Your task to perform on an android device: Add "razer naga" to the cart on walmart.com, then select checkout. Image 0: 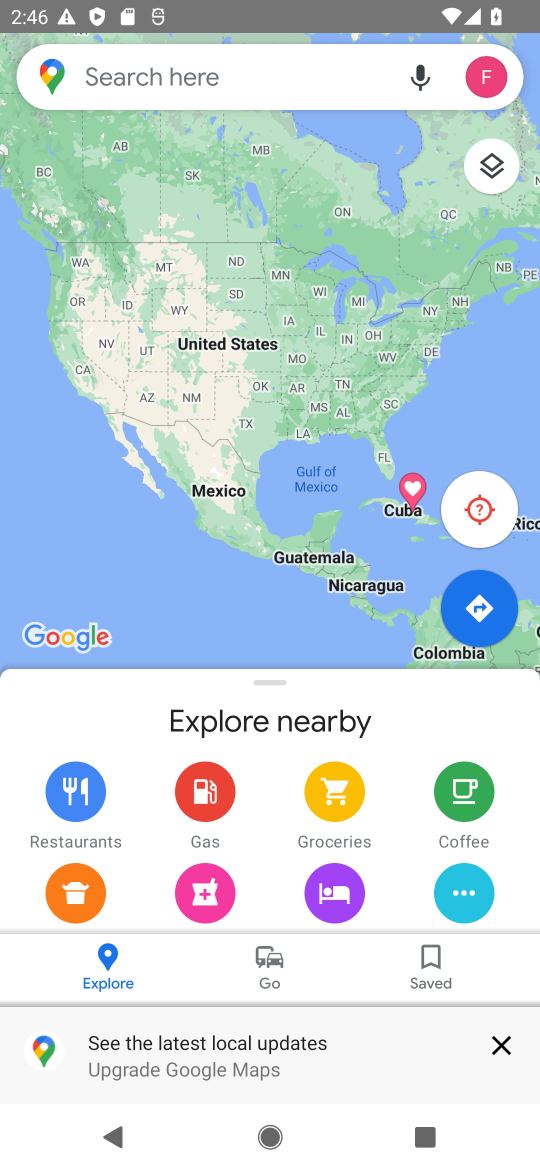
Step 0: press home button
Your task to perform on an android device: Add "razer naga" to the cart on walmart.com, then select checkout. Image 1: 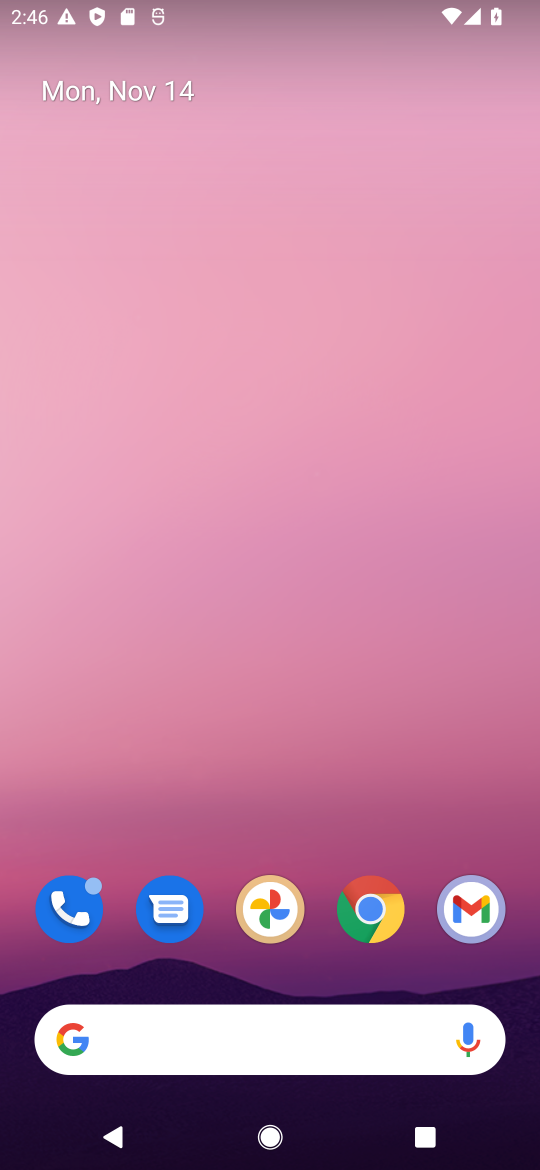
Step 1: drag from (313, 978) to (377, 32)
Your task to perform on an android device: Add "razer naga" to the cart on walmart.com, then select checkout. Image 2: 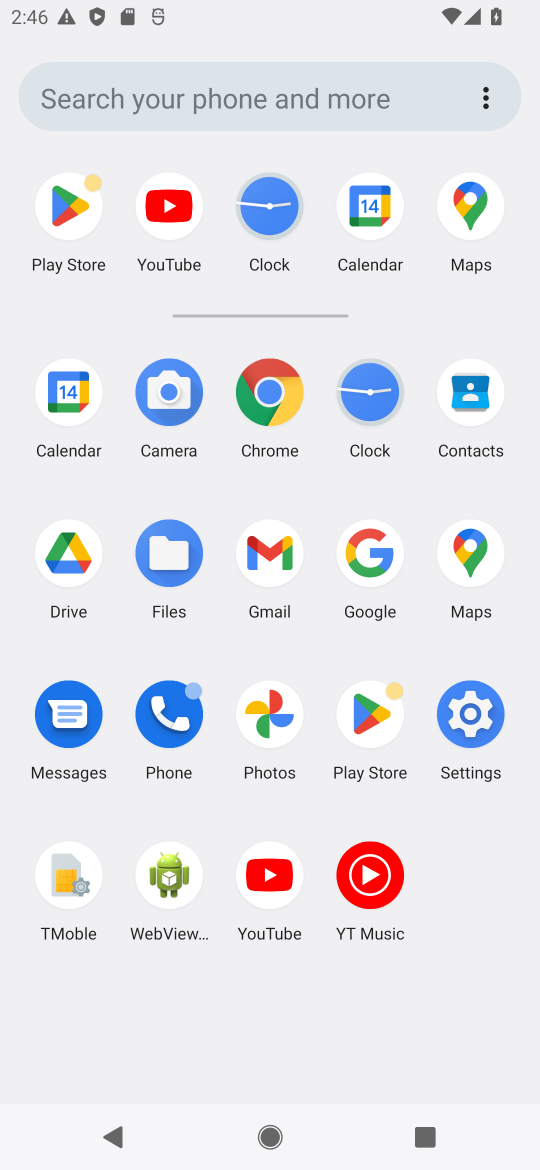
Step 2: click (272, 391)
Your task to perform on an android device: Add "razer naga" to the cart on walmart.com, then select checkout. Image 3: 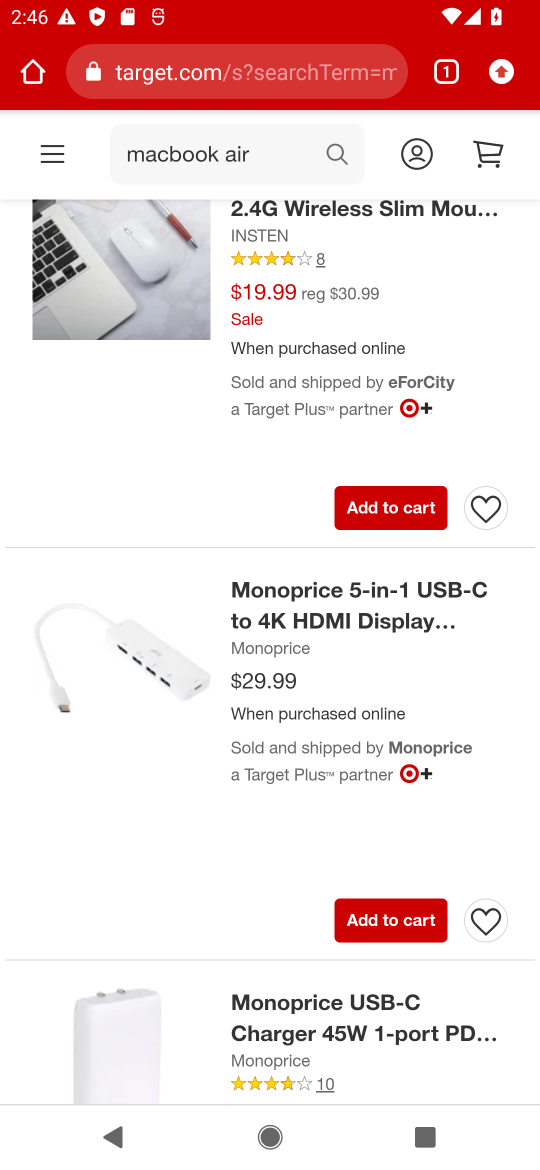
Step 3: click (245, 79)
Your task to perform on an android device: Add "razer naga" to the cart on walmart.com, then select checkout. Image 4: 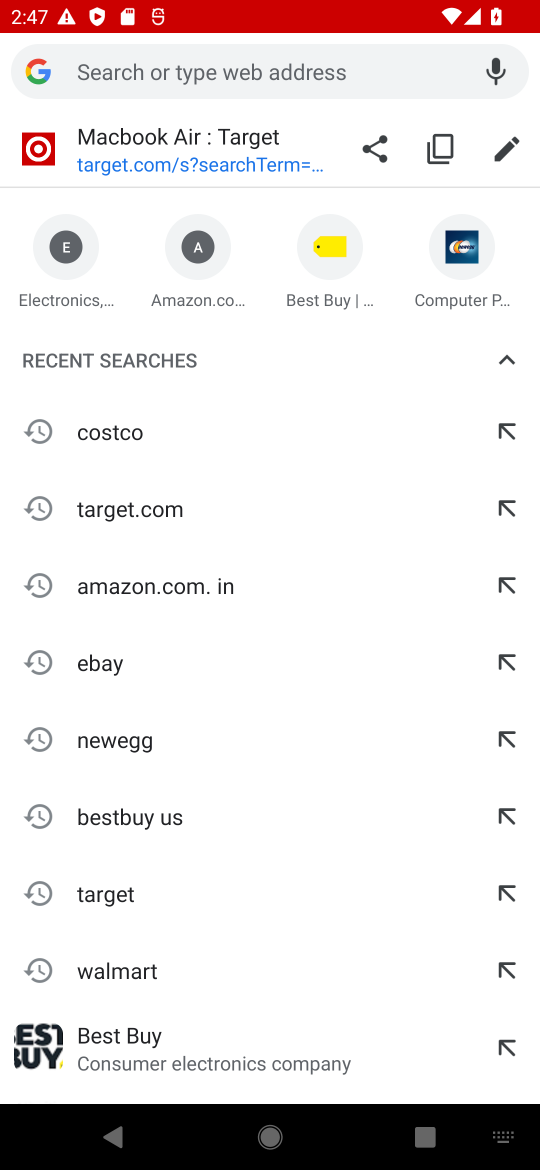
Step 4: type "walmart.com"
Your task to perform on an android device: Add "razer naga" to the cart on walmart.com, then select checkout. Image 5: 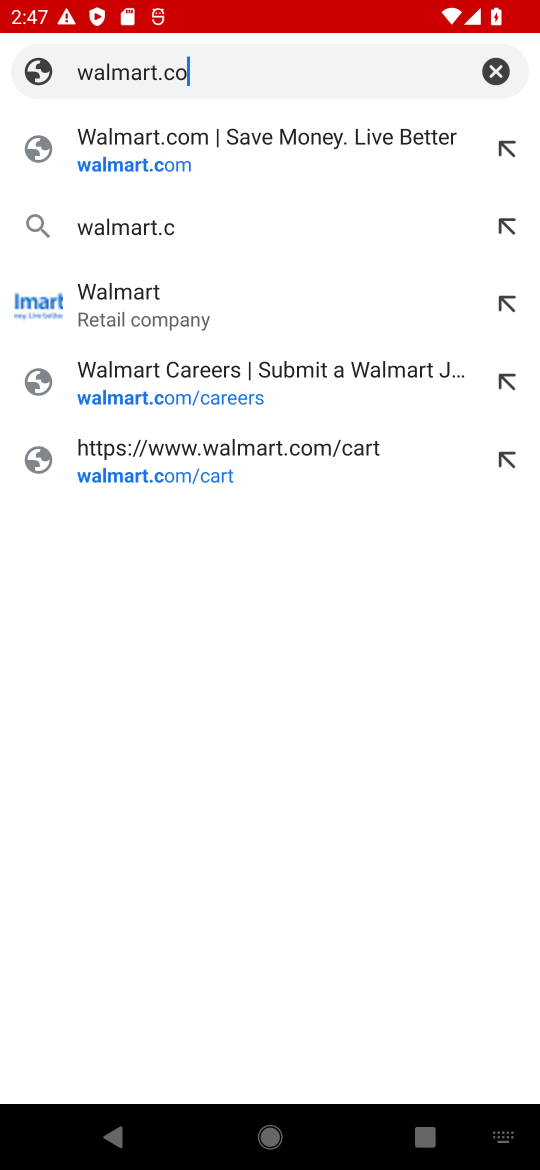
Step 5: press enter
Your task to perform on an android device: Add "razer naga" to the cart on walmart.com, then select checkout. Image 6: 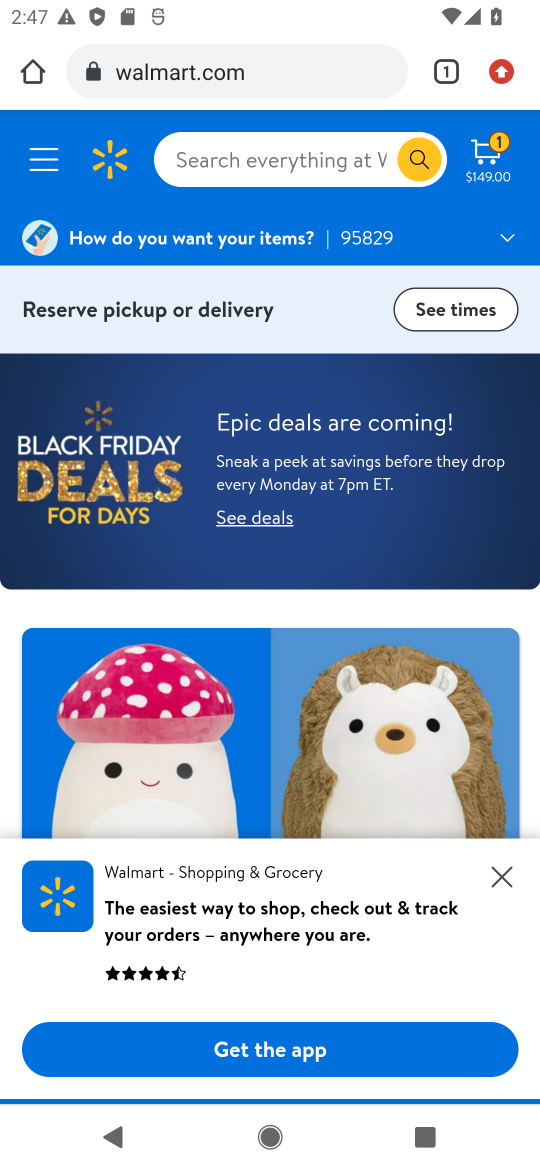
Step 6: click (241, 162)
Your task to perform on an android device: Add "razer naga" to the cart on walmart.com, then select checkout. Image 7: 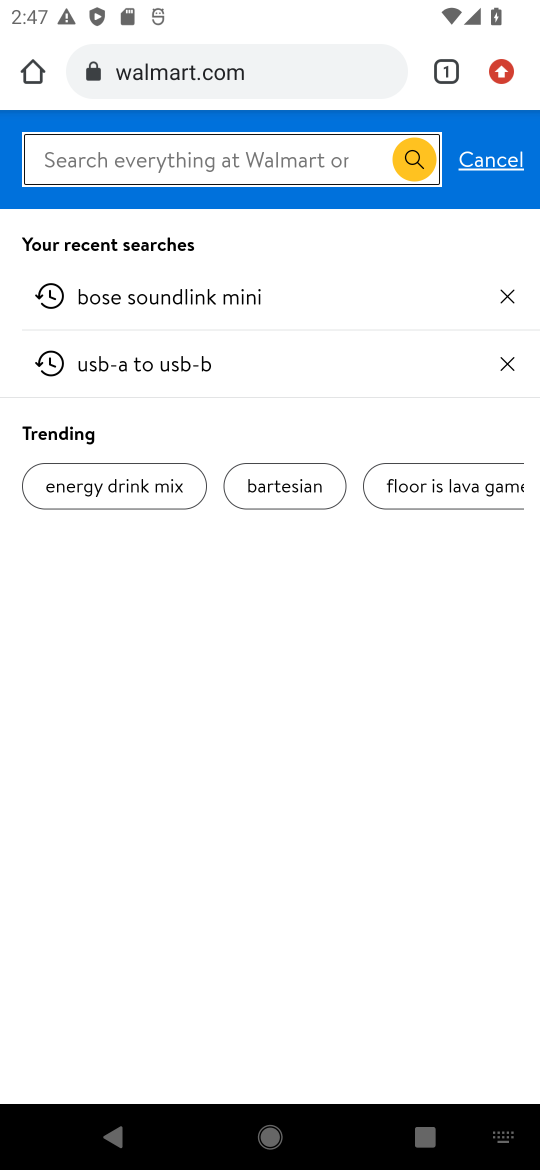
Step 7: type "razer naga"
Your task to perform on an android device: Add "razer naga" to the cart on walmart.com, then select checkout. Image 8: 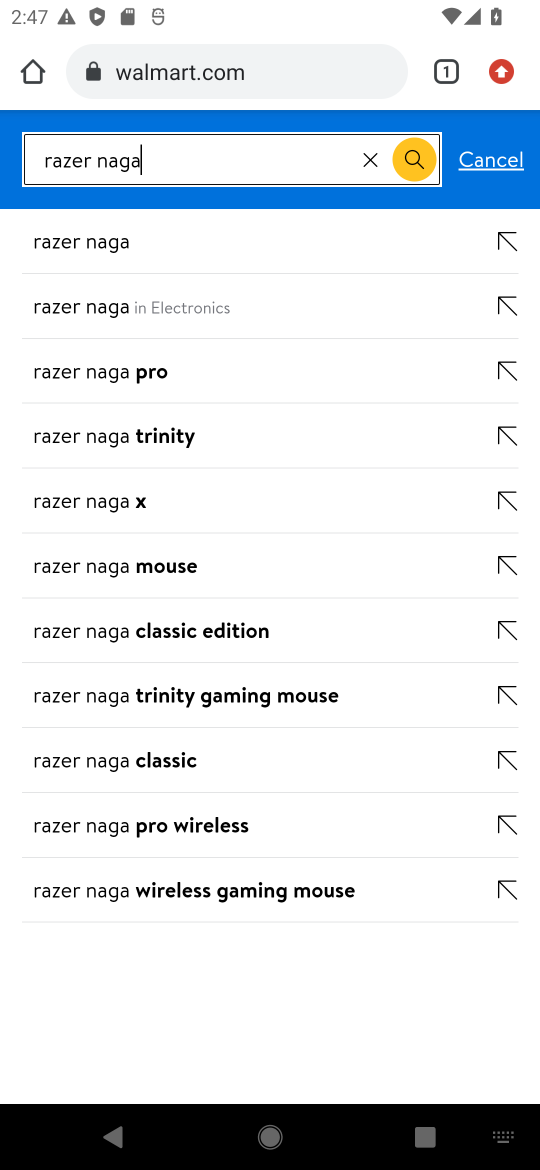
Step 8: press enter
Your task to perform on an android device: Add "razer naga" to the cart on walmart.com, then select checkout. Image 9: 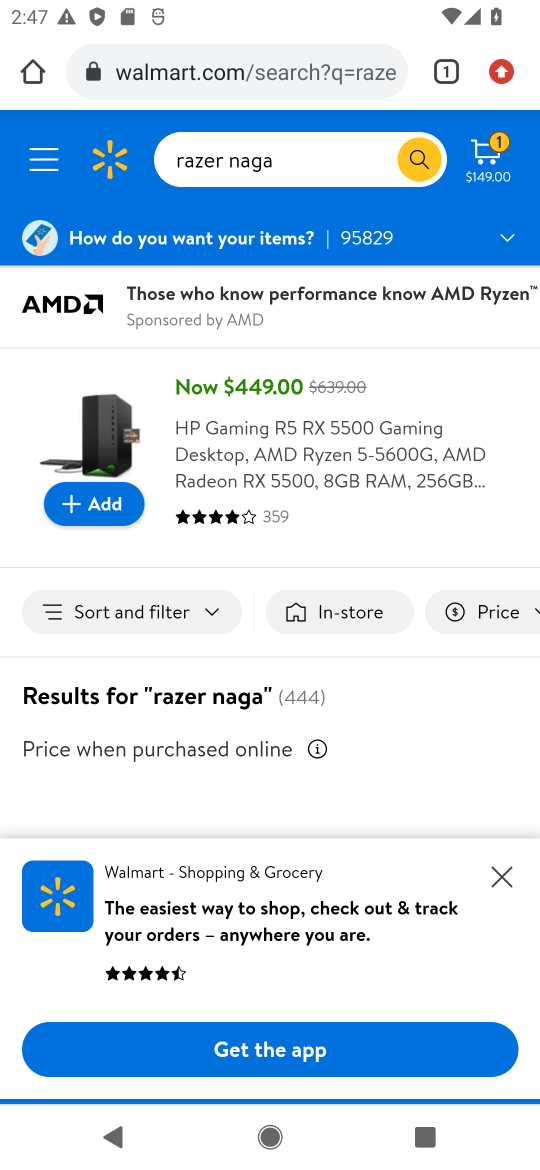
Step 9: drag from (331, 649) to (289, 121)
Your task to perform on an android device: Add "razer naga" to the cart on walmart.com, then select checkout. Image 10: 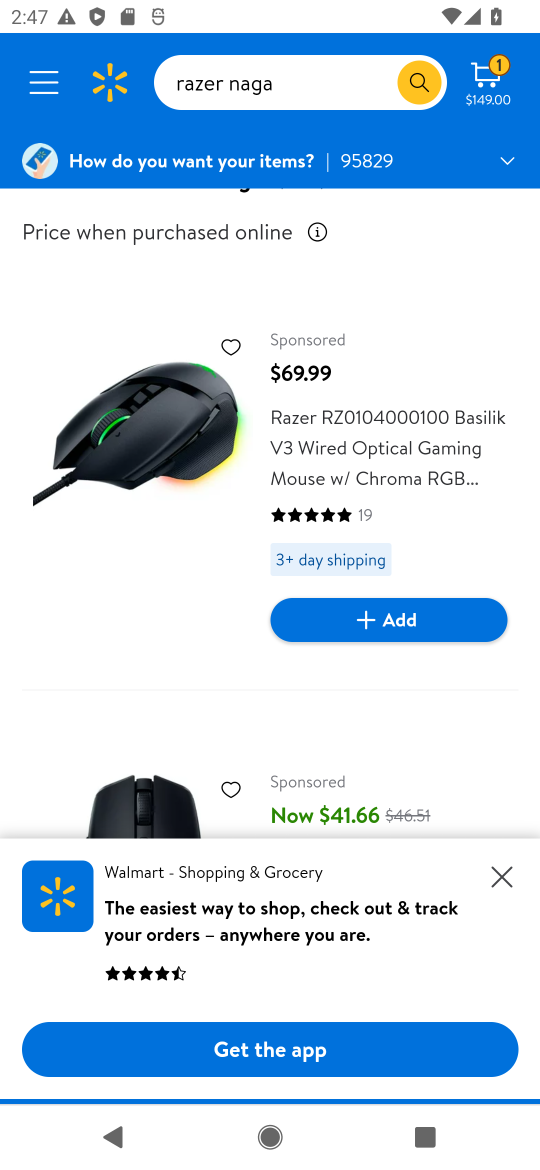
Step 10: click (406, 624)
Your task to perform on an android device: Add "razer naga" to the cart on walmart.com, then select checkout. Image 11: 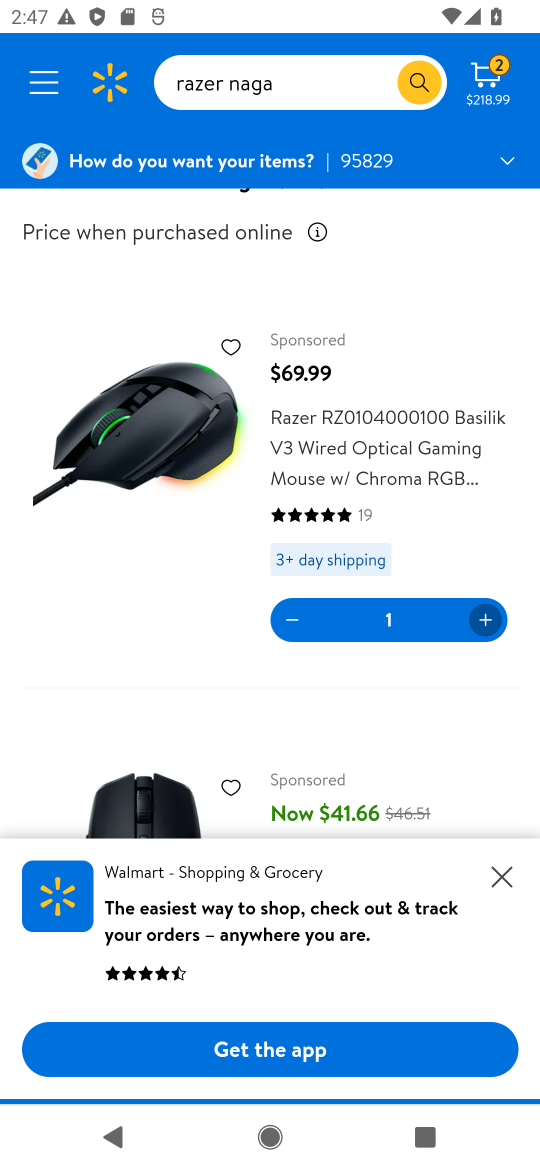
Step 11: click (510, 74)
Your task to perform on an android device: Add "razer naga" to the cart on walmart.com, then select checkout. Image 12: 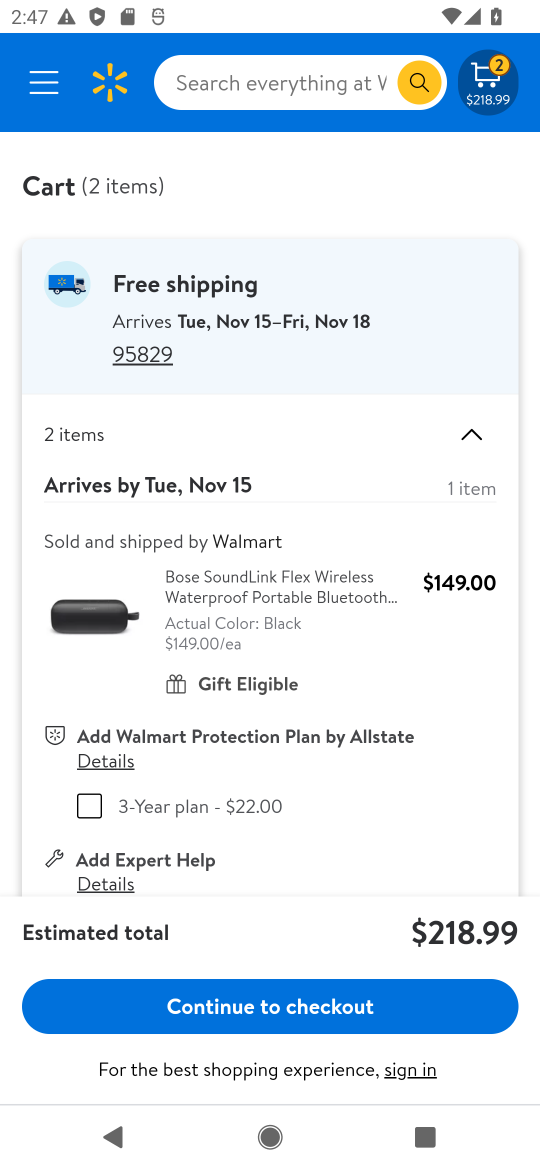
Step 12: click (257, 1000)
Your task to perform on an android device: Add "razer naga" to the cart on walmart.com, then select checkout. Image 13: 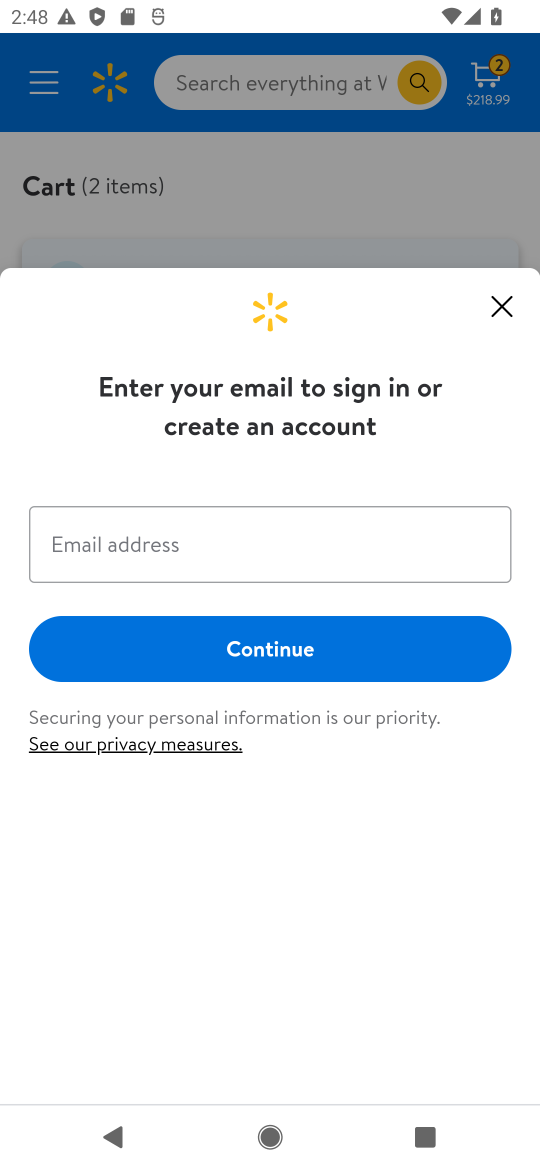
Step 13: task complete